Your task to perform on an android device: Search for sushi restaurants on Maps Image 0: 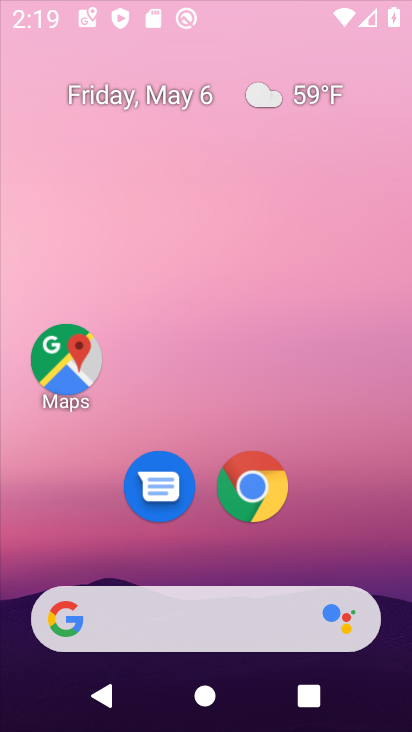
Step 0: click (260, 490)
Your task to perform on an android device: Search for sushi restaurants on Maps Image 1: 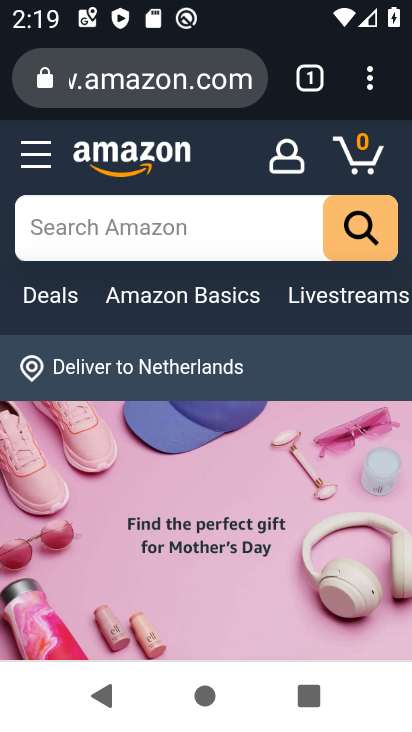
Step 1: press home button
Your task to perform on an android device: Search for sushi restaurants on Maps Image 2: 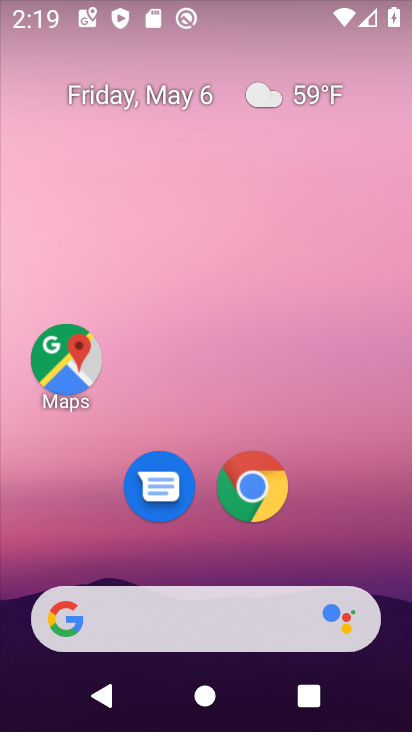
Step 2: click (62, 364)
Your task to perform on an android device: Search for sushi restaurants on Maps Image 3: 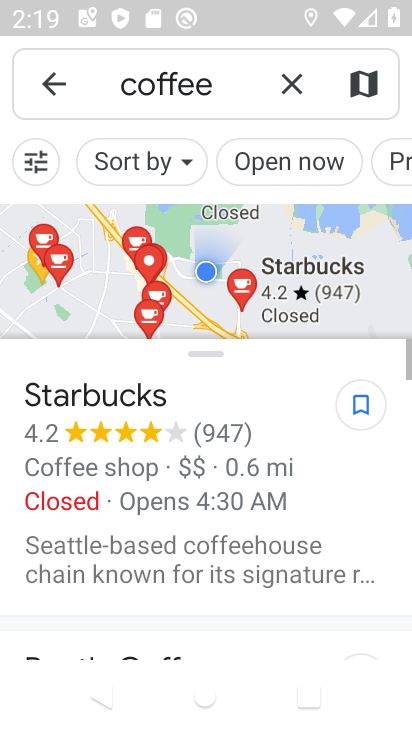
Step 3: click (309, 86)
Your task to perform on an android device: Search for sushi restaurants on Maps Image 4: 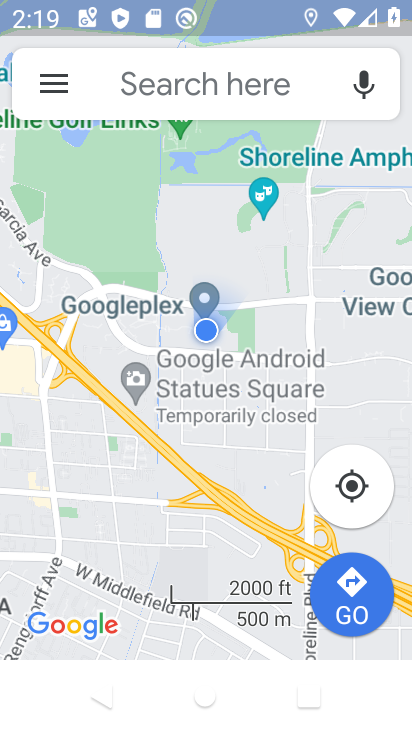
Step 4: click (197, 84)
Your task to perform on an android device: Search for sushi restaurants on Maps Image 5: 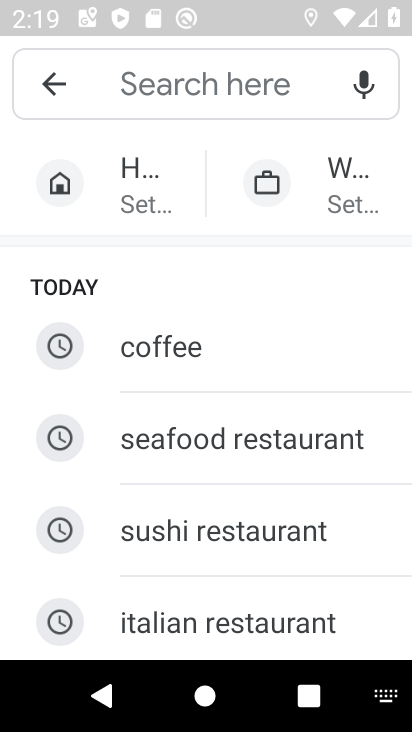
Step 5: click (193, 534)
Your task to perform on an android device: Search for sushi restaurants on Maps Image 6: 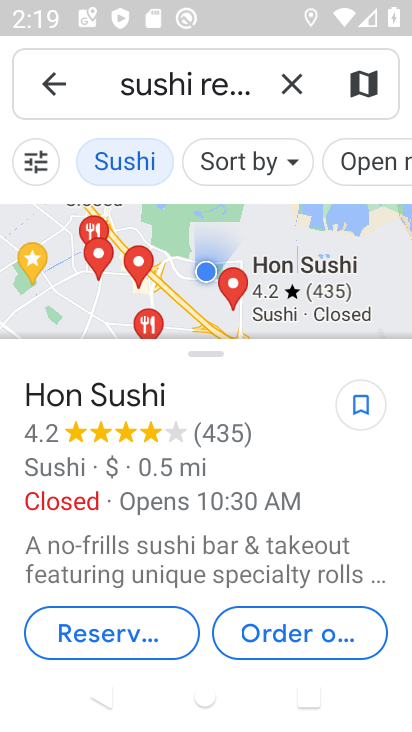
Step 6: task complete